Your task to perform on an android device: change keyboard looks Image 0: 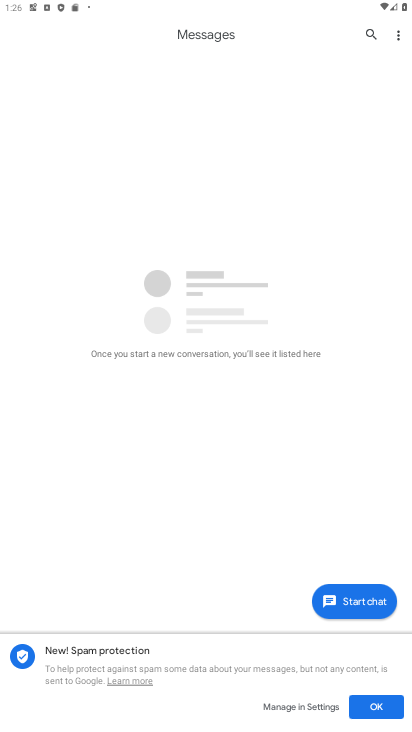
Step 0: press home button
Your task to perform on an android device: change keyboard looks Image 1: 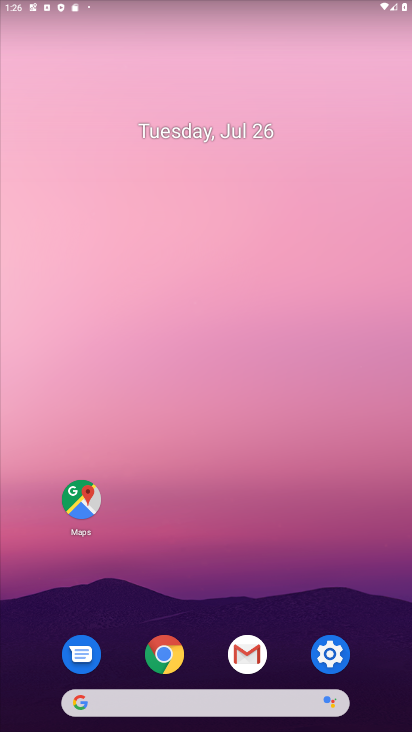
Step 1: click (326, 662)
Your task to perform on an android device: change keyboard looks Image 2: 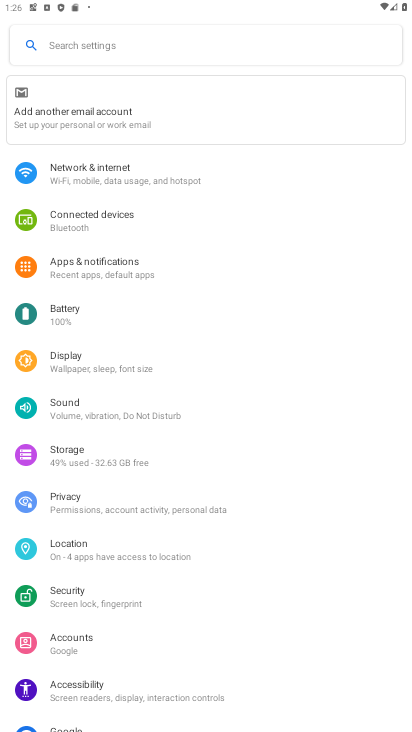
Step 2: click (87, 44)
Your task to perform on an android device: change keyboard looks Image 3: 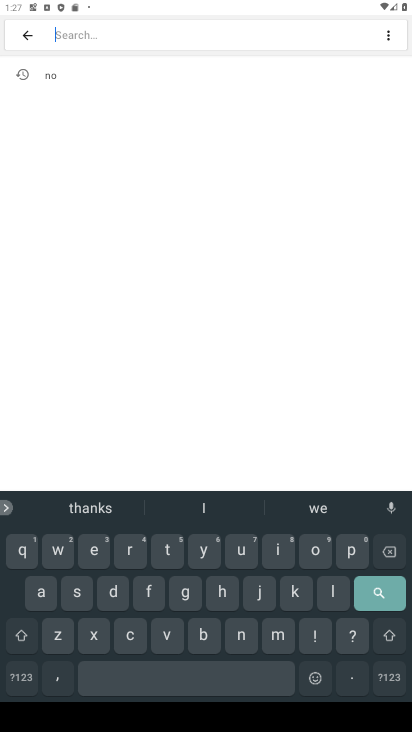
Step 3: click (298, 596)
Your task to perform on an android device: change keyboard looks Image 4: 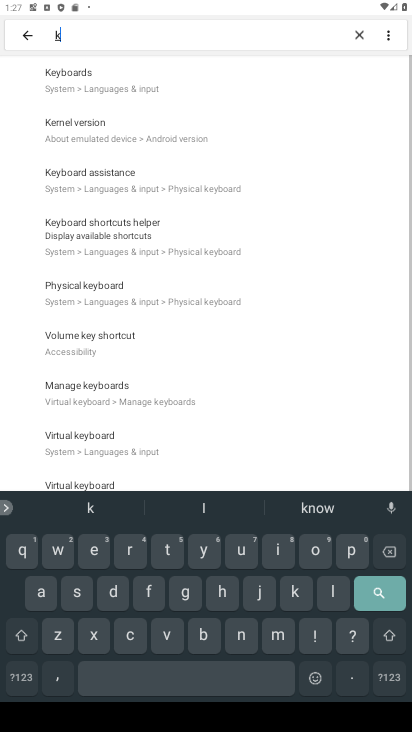
Step 4: click (93, 92)
Your task to perform on an android device: change keyboard looks Image 5: 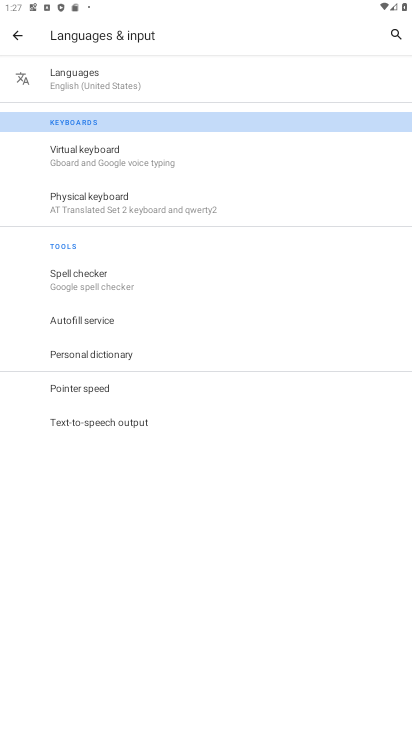
Step 5: click (141, 170)
Your task to perform on an android device: change keyboard looks Image 6: 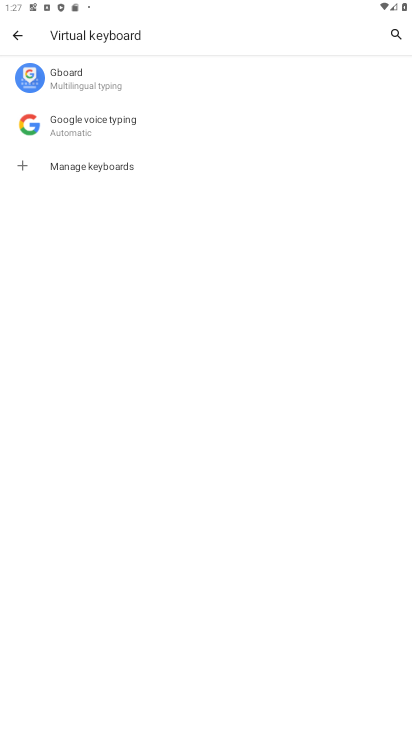
Step 6: click (102, 73)
Your task to perform on an android device: change keyboard looks Image 7: 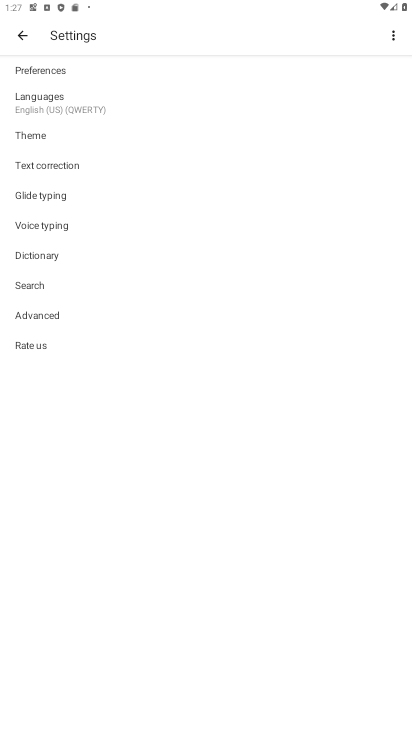
Step 7: click (56, 131)
Your task to perform on an android device: change keyboard looks Image 8: 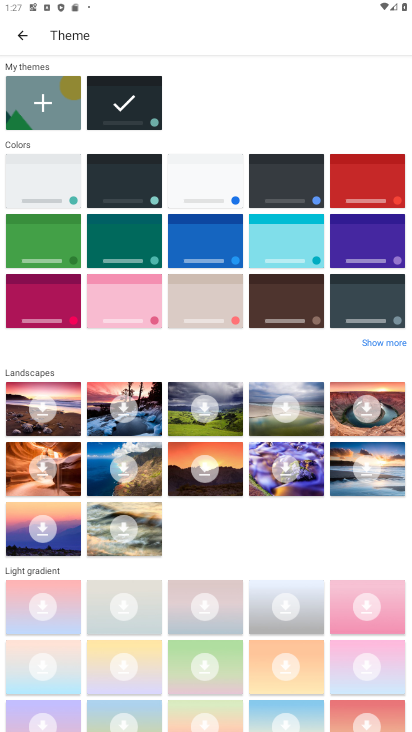
Step 8: click (43, 250)
Your task to perform on an android device: change keyboard looks Image 9: 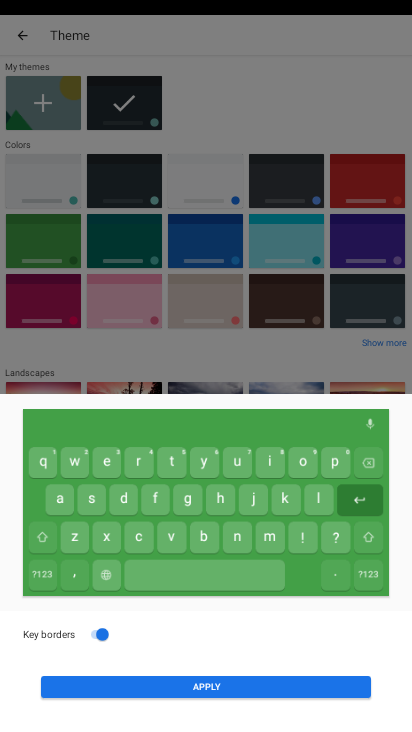
Step 9: click (212, 688)
Your task to perform on an android device: change keyboard looks Image 10: 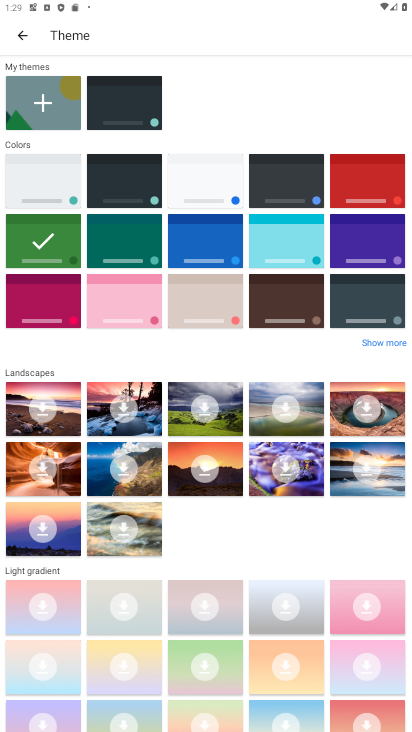
Step 10: task complete